Your task to perform on an android device: Open my contact list Image 0: 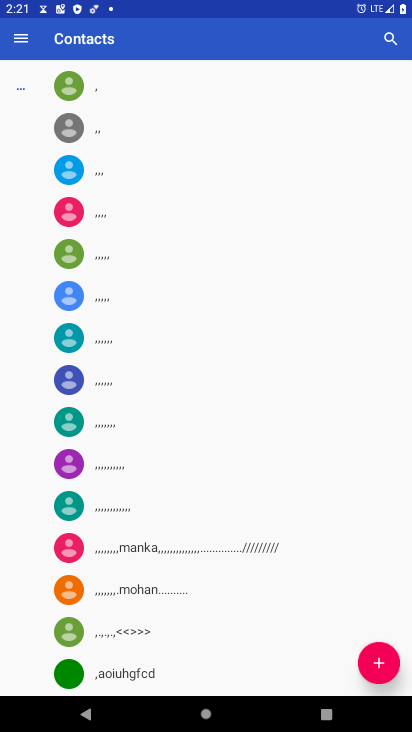
Step 0: press home button
Your task to perform on an android device: Open my contact list Image 1: 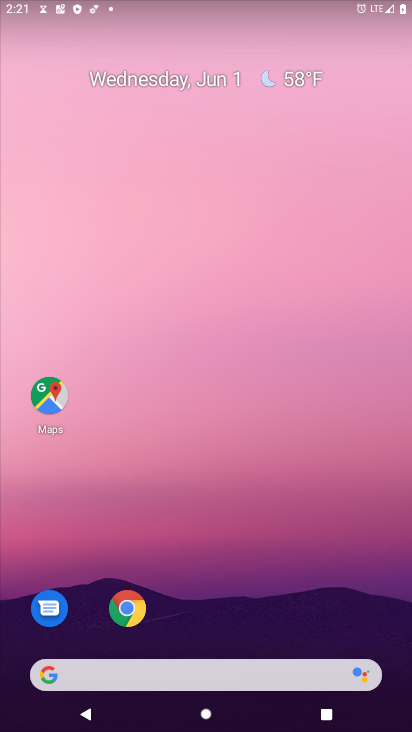
Step 1: drag from (231, 573) to (182, 111)
Your task to perform on an android device: Open my contact list Image 2: 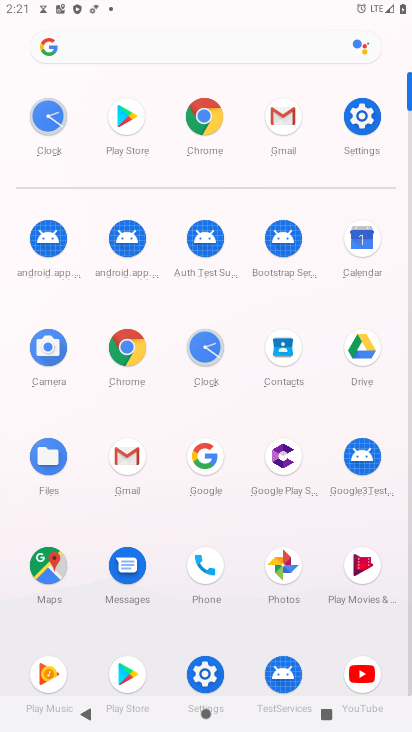
Step 2: click (280, 353)
Your task to perform on an android device: Open my contact list Image 3: 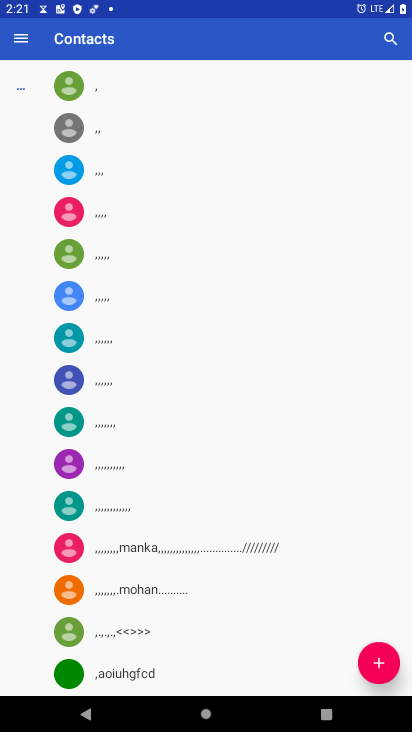
Step 3: click (371, 660)
Your task to perform on an android device: Open my contact list Image 4: 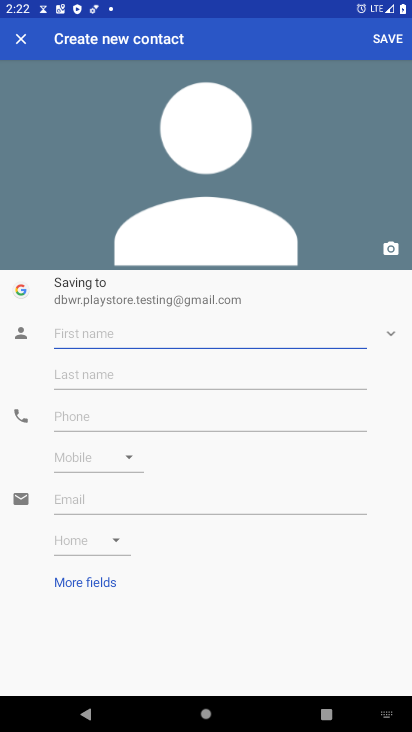
Step 4: type "shtiugt"
Your task to perform on an android device: Open my contact list Image 5: 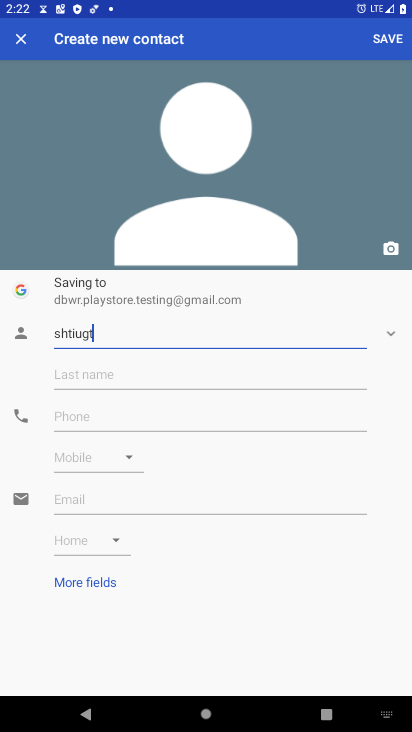
Step 5: click (92, 418)
Your task to perform on an android device: Open my contact list Image 6: 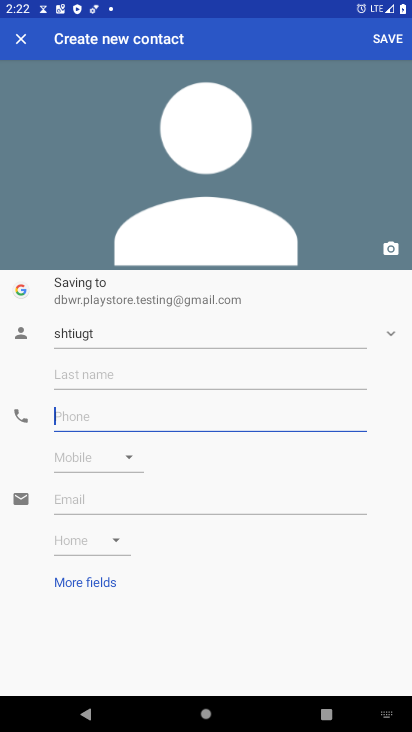
Step 6: type ""
Your task to perform on an android device: Open my contact list Image 7: 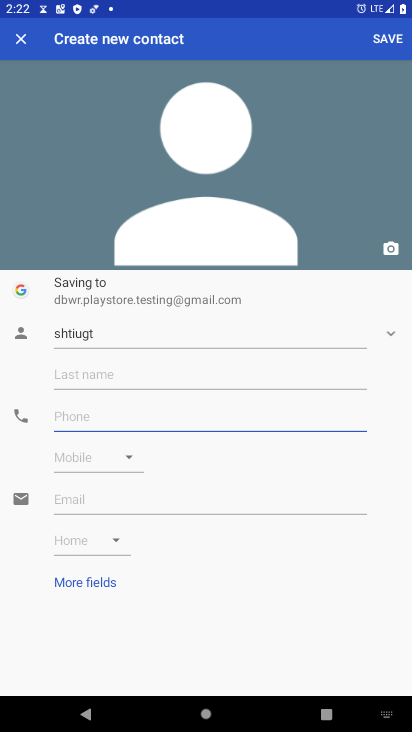
Step 7: type "4578868-97986"
Your task to perform on an android device: Open my contact list Image 8: 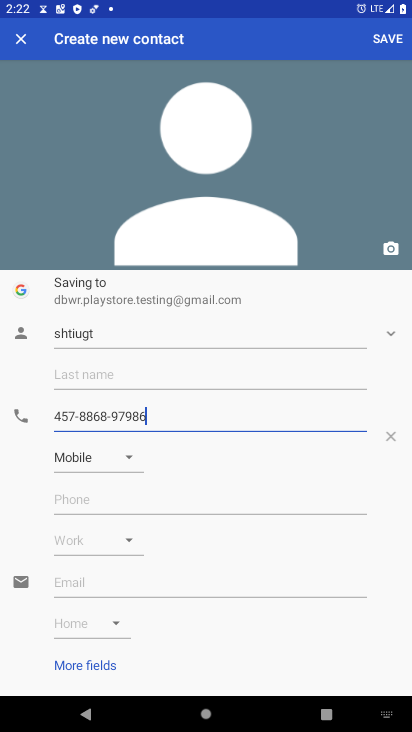
Step 8: click (376, 34)
Your task to perform on an android device: Open my contact list Image 9: 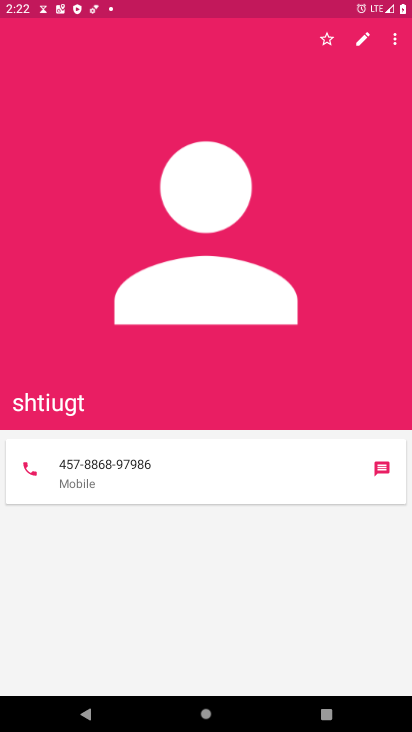
Step 9: task complete